Your task to perform on an android device: Search for flights from Sydney to Helsinki Image 0: 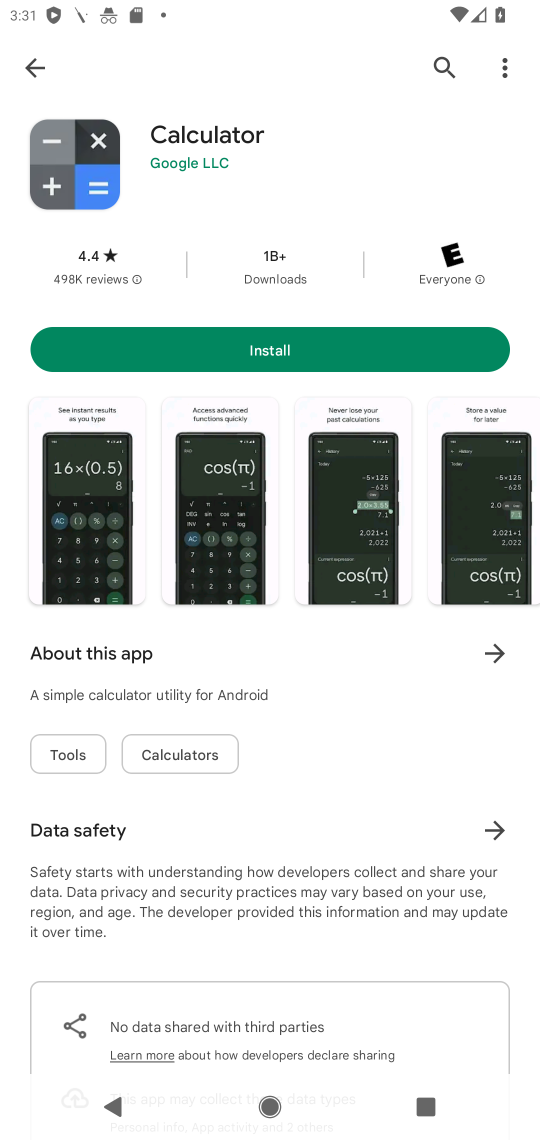
Step 0: press home button
Your task to perform on an android device: Search for flights from Sydney to Helsinki Image 1: 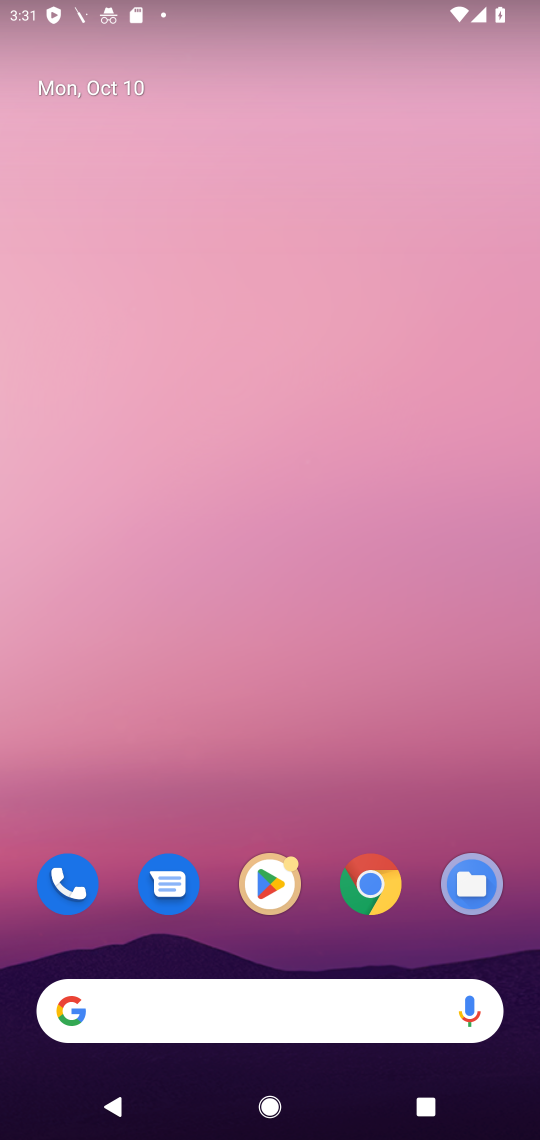
Step 1: click (327, 992)
Your task to perform on an android device: Search for flights from Sydney to Helsinki Image 2: 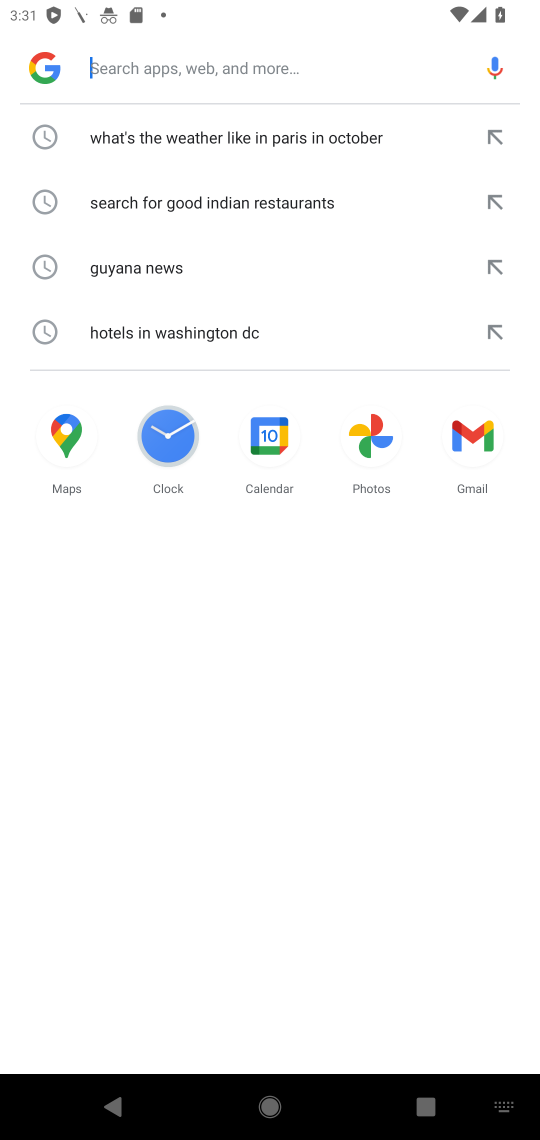
Step 2: type " flights from Sydney to Helsinki"
Your task to perform on an android device: Search for flights from Sydney to Helsinki Image 3: 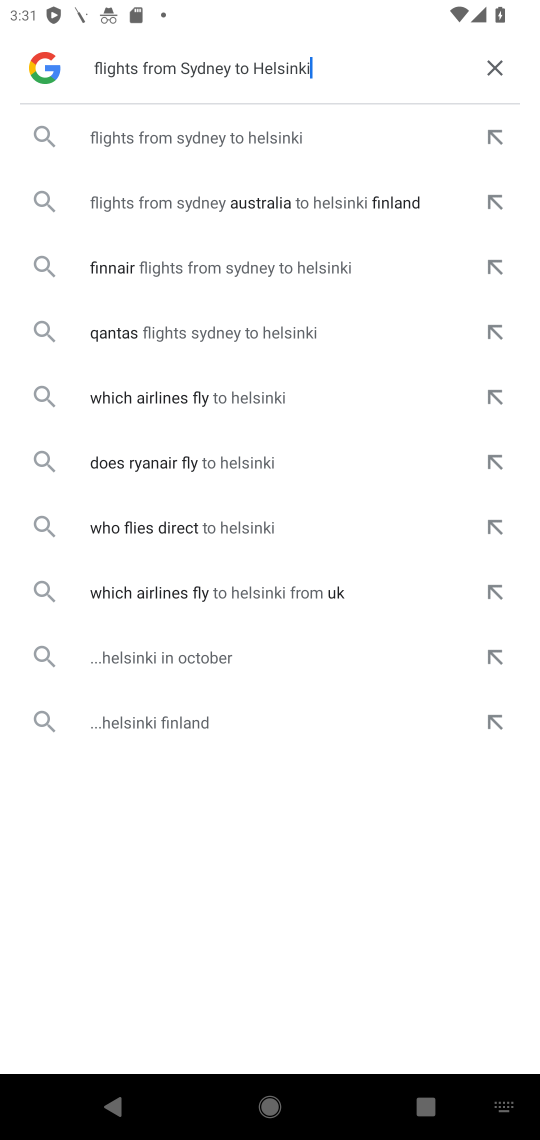
Step 3: click (276, 143)
Your task to perform on an android device: Search for flights from Sydney to Helsinki Image 4: 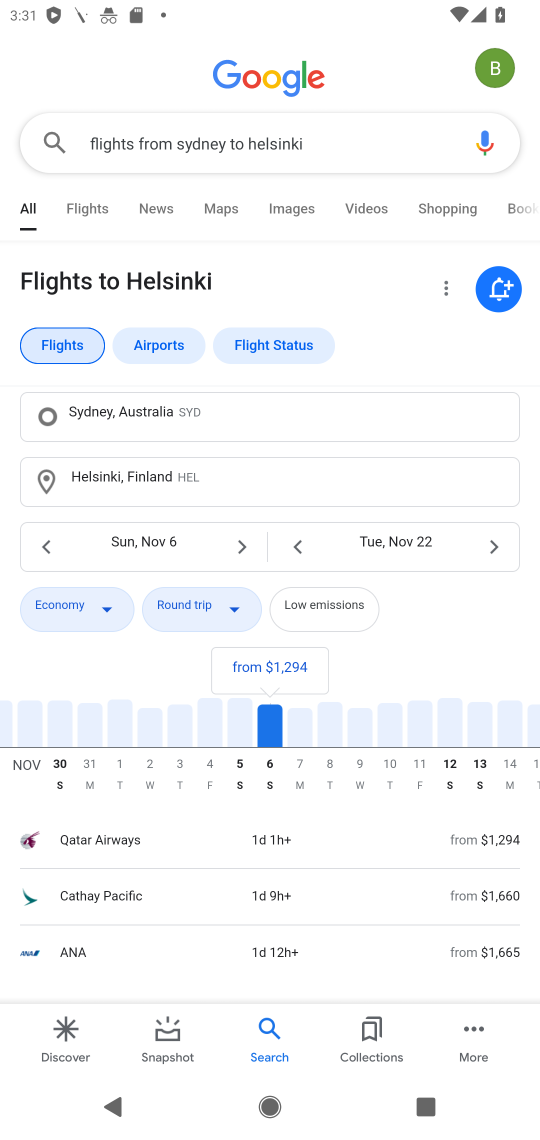
Step 4: task complete